Your task to perform on an android device: toggle translation in the chrome app Image 0: 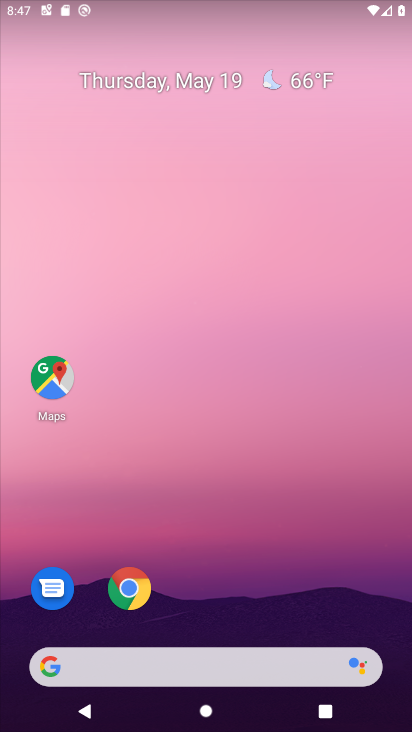
Step 0: drag from (361, 589) to (352, 214)
Your task to perform on an android device: toggle translation in the chrome app Image 1: 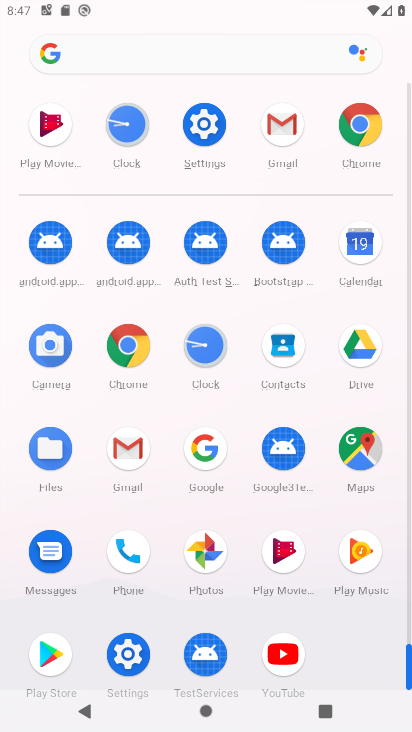
Step 1: click (135, 366)
Your task to perform on an android device: toggle translation in the chrome app Image 2: 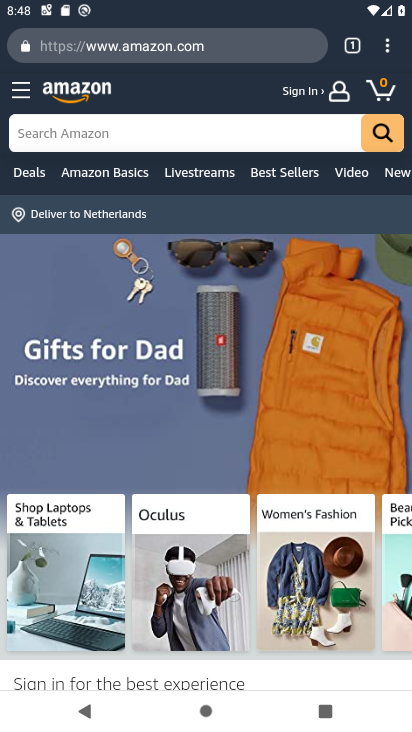
Step 2: click (392, 50)
Your task to perform on an android device: toggle translation in the chrome app Image 3: 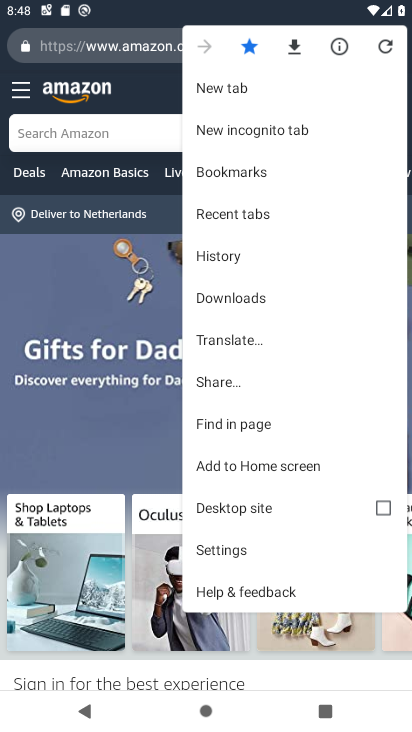
Step 3: drag from (333, 443) to (344, 330)
Your task to perform on an android device: toggle translation in the chrome app Image 4: 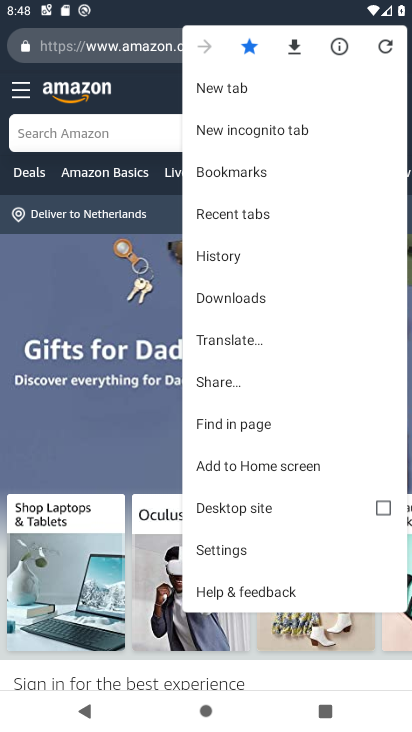
Step 4: click (244, 553)
Your task to perform on an android device: toggle translation in the chrome app Image 5: 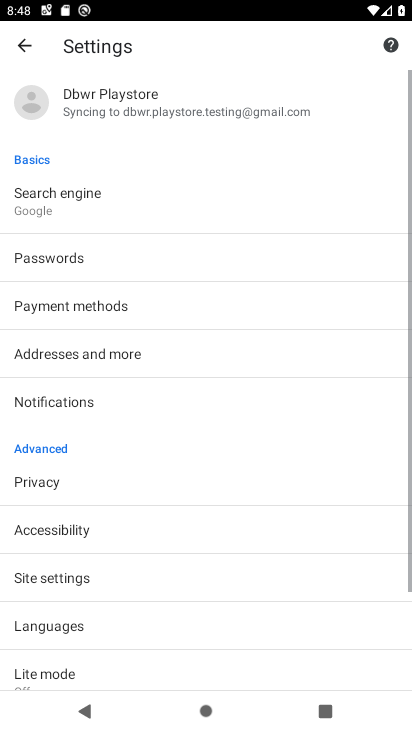
Step 5: drag from (269, 584) to (283, 504)
Your task to perform on an android device: toggle translation in the chrome app Image 6: 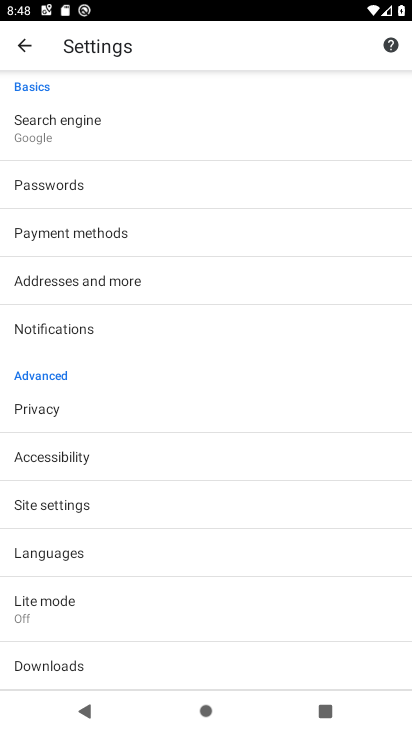
Step 6: drag from (302, 640) to (305, 514)
Your task to perform on an android device: toggle translation in the chrome app Image 7: 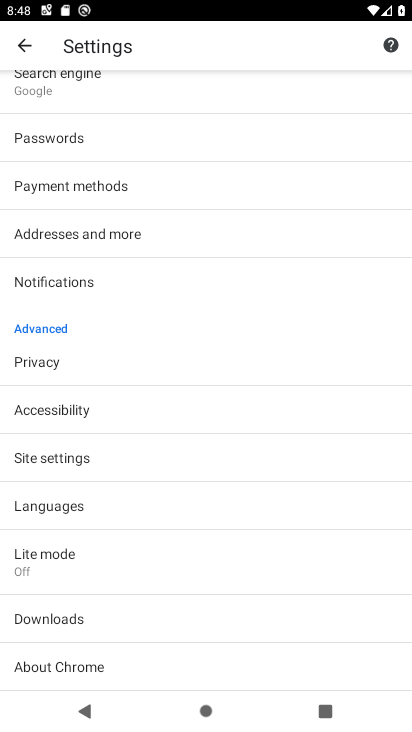
Step 7: drag from (315, 590) to (320, 419)
Your task to perform on an android device: toggle translation in the chrome app Image 8: 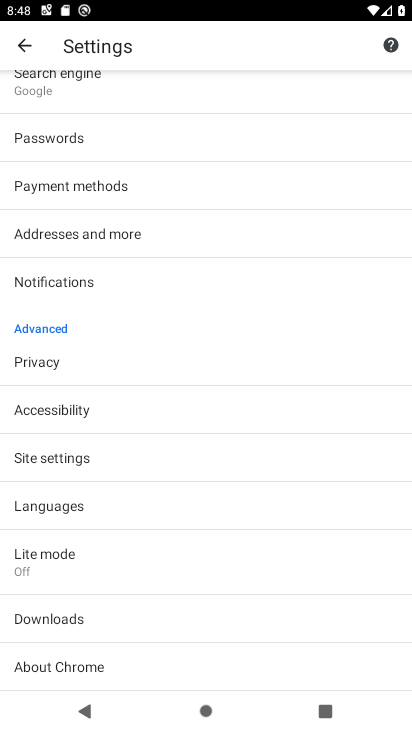
Step 8: drag from (319, 565) to (321, 405)
Your task to perform on an android device: toggle translation in the chrome app Image 9: 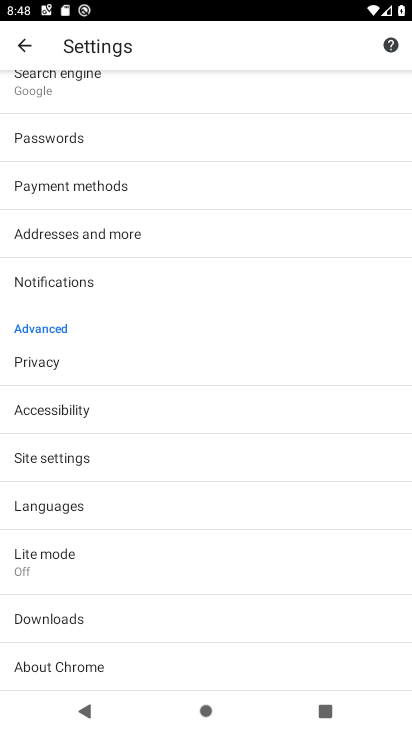
Step 9: click (278, 492)
Your task to perform on an android device: toggle translation in the chrome app Image 10: 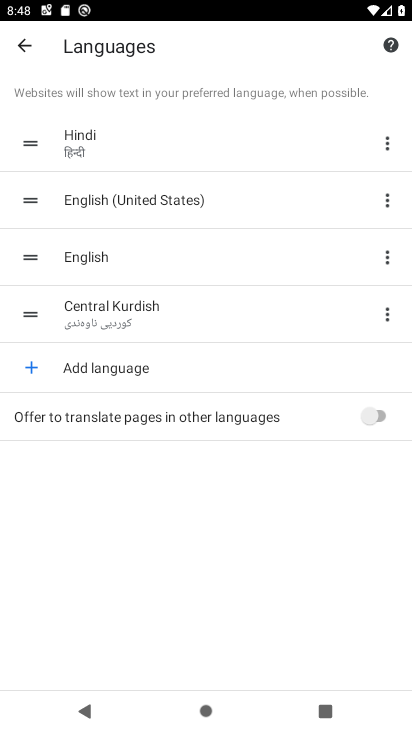
Step 10: click (364, 433)
Your task to perform on an android device: toggle translation in the chrome app Image 11: 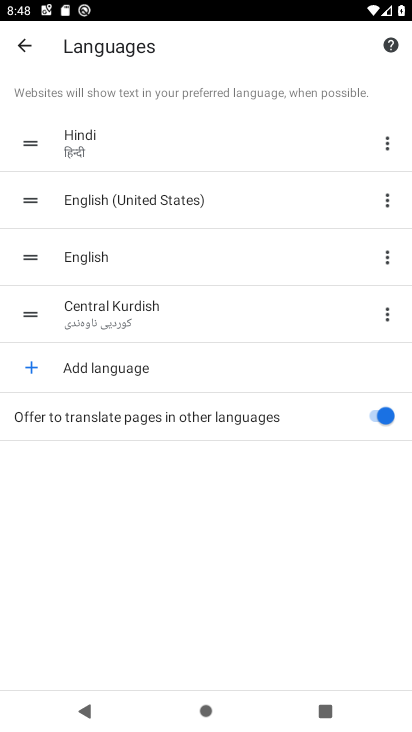
Step 11: task complete